Your task to perform on an android device: Go to Yahoo.com Image 0: 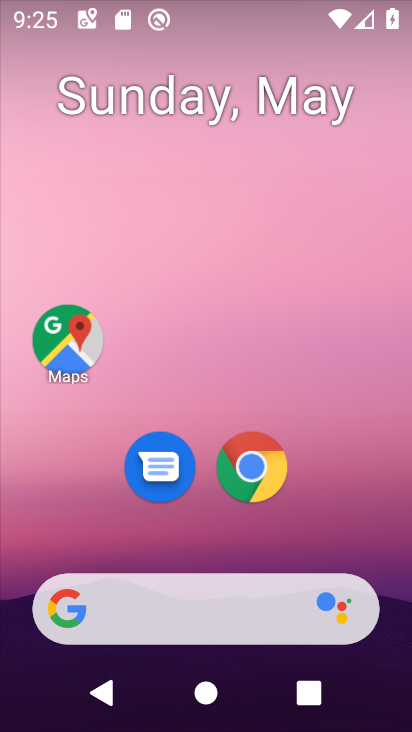
Step 0: drag from (364, 515) to (363, 92)
Your task to perform on an android device: Go to Yahoo.com Image 1: 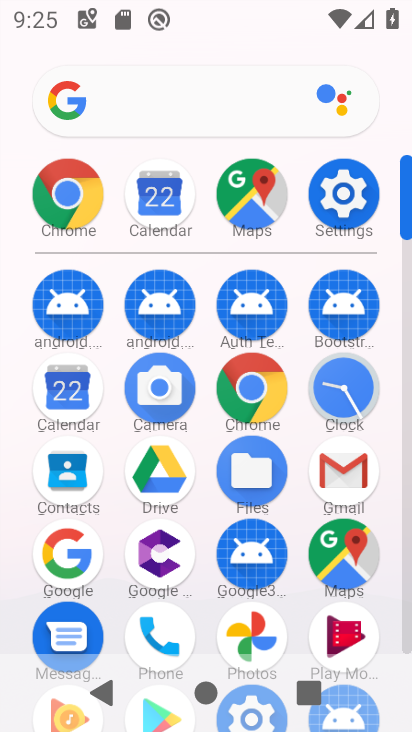
Step 1: click (281, 411)
Your task to perform on an android device: Go to Yahoo.com Image 2: 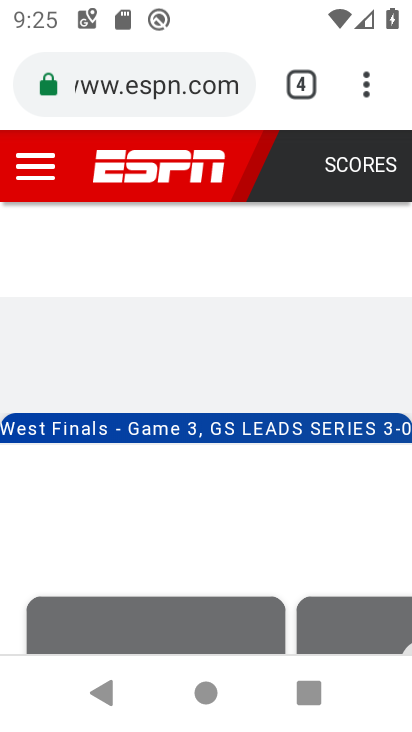
Step 2: click (200, 82)
Your task to perform on an android device: Go to Yahoo.com Image 3: 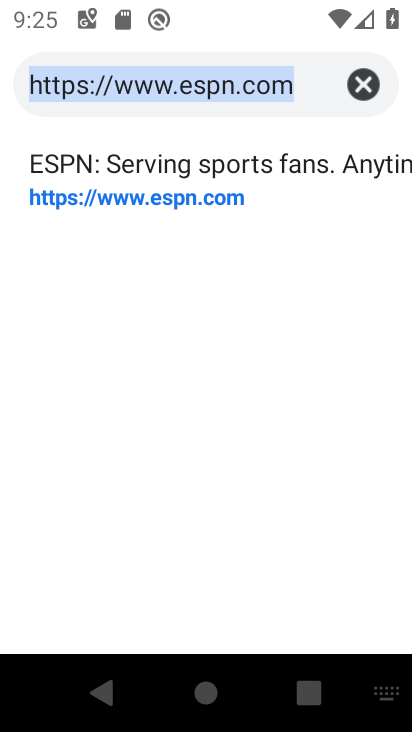
Step 3: click (371, 91)
Your task to perform on an android device: Go to Yahoo.com Image 4: 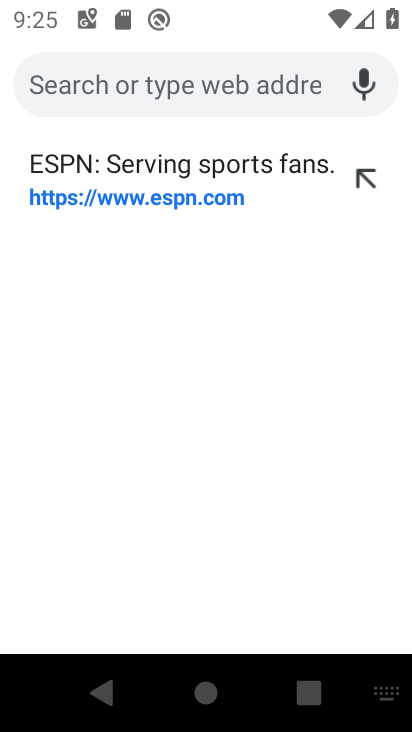
Step 4: type "yahoo.com"
Your task to perform on an android device: Go to Yahoo.com Image 5: 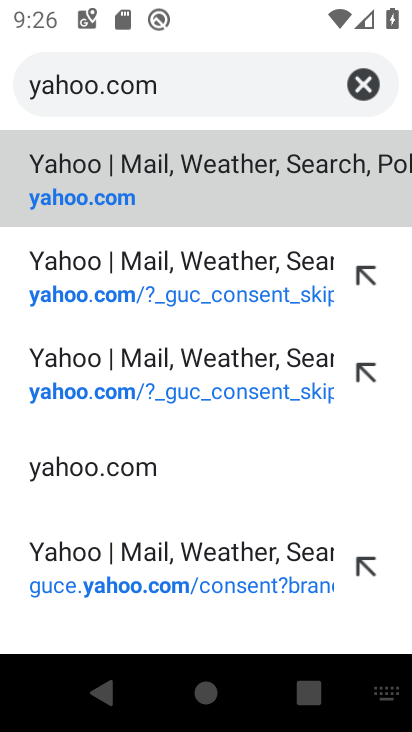
Step 5: click (162, 172)
Your task to perform on an android device: Go to Yahoo.com Image 6: 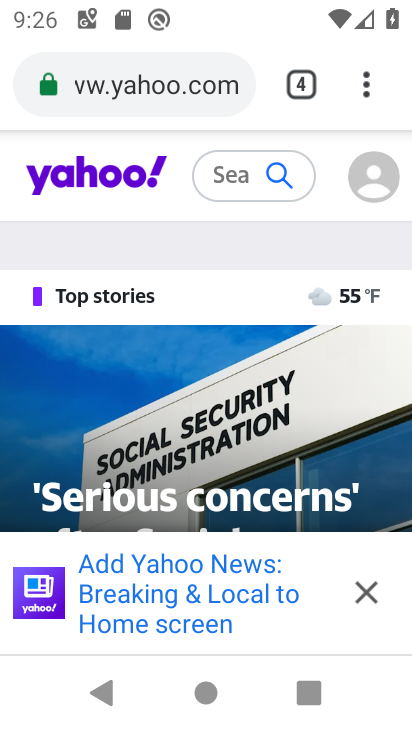
Step 6: click (366, 588)
Your task to perform on an android device: Go to Yahoo.com Image 7: 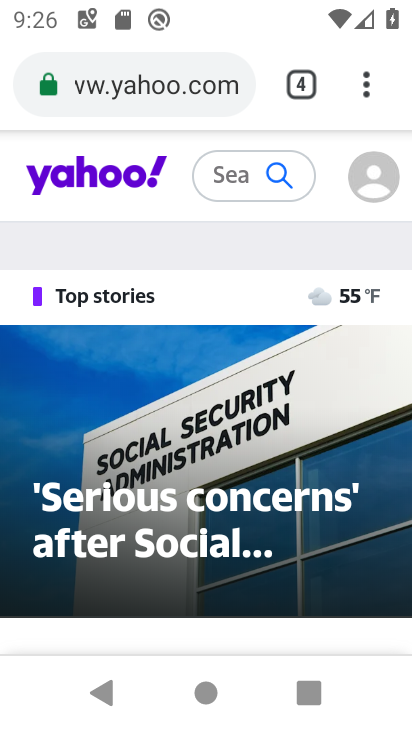
Step 7: task complete